Your task to perform on an android device: turn on sleep mode Image 0: 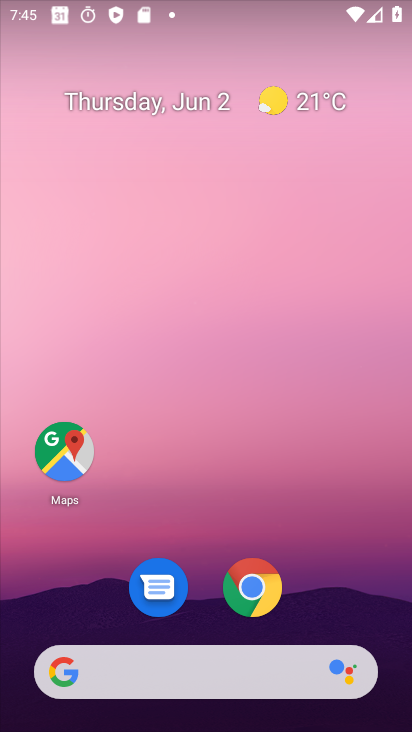
Step 0: drag from (337, 630) to (317, 22)
Your task to perform on an android device: turn on sleep mode Image 1: 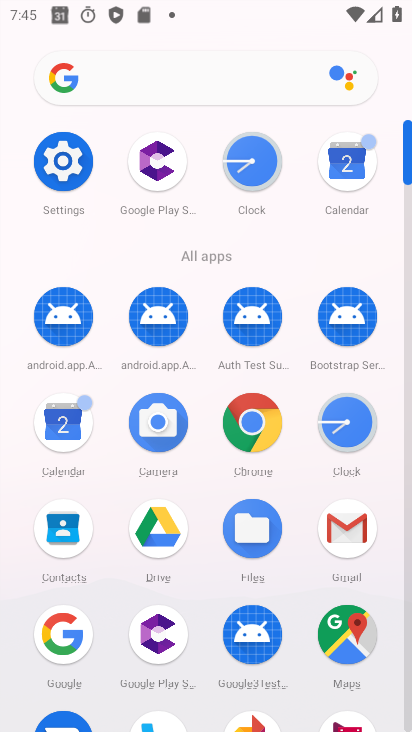
Step 1: click (64, 168)
Your task to perform on an android device: turn on sleep mode Image 2: 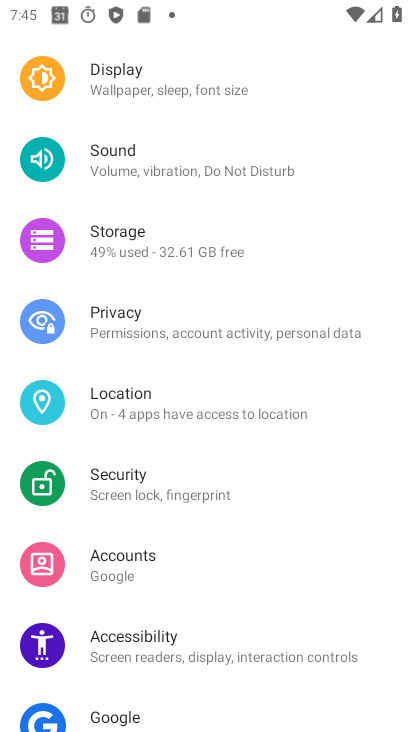
Step 2: click (135, 90)
Your task to perform on an android device: turn on sleep mode Image 3: 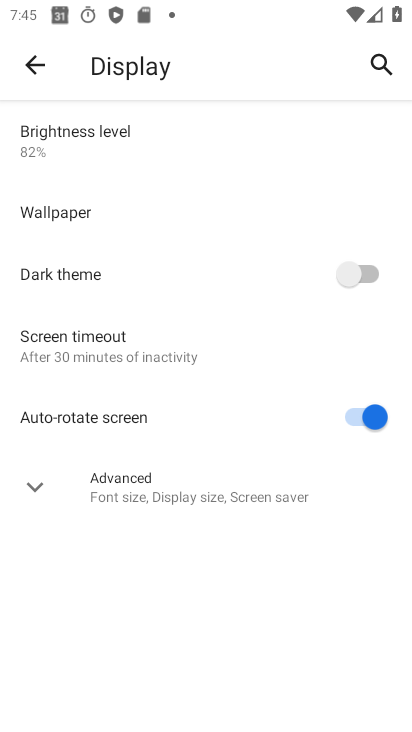
Step 3: click (31, 490)
Your task to perform on an android device: turn on sleep mode Image 4: 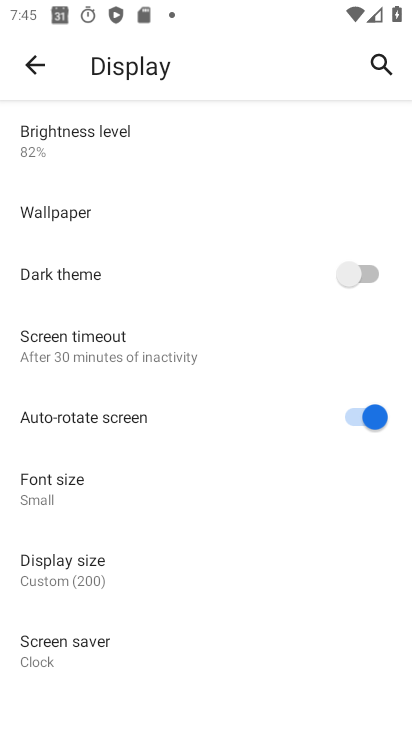
Step 4: task complete